Your task to perform on an android device: Go to settings Image 0: 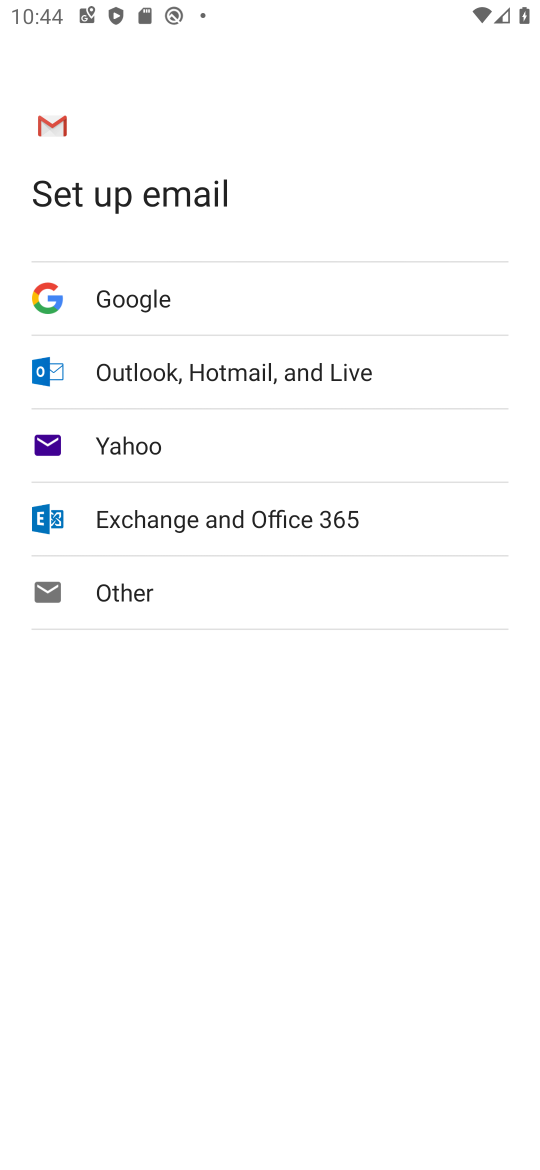
Step 0: press home button
Your task to perform on an android device: Go to settings Image 1: 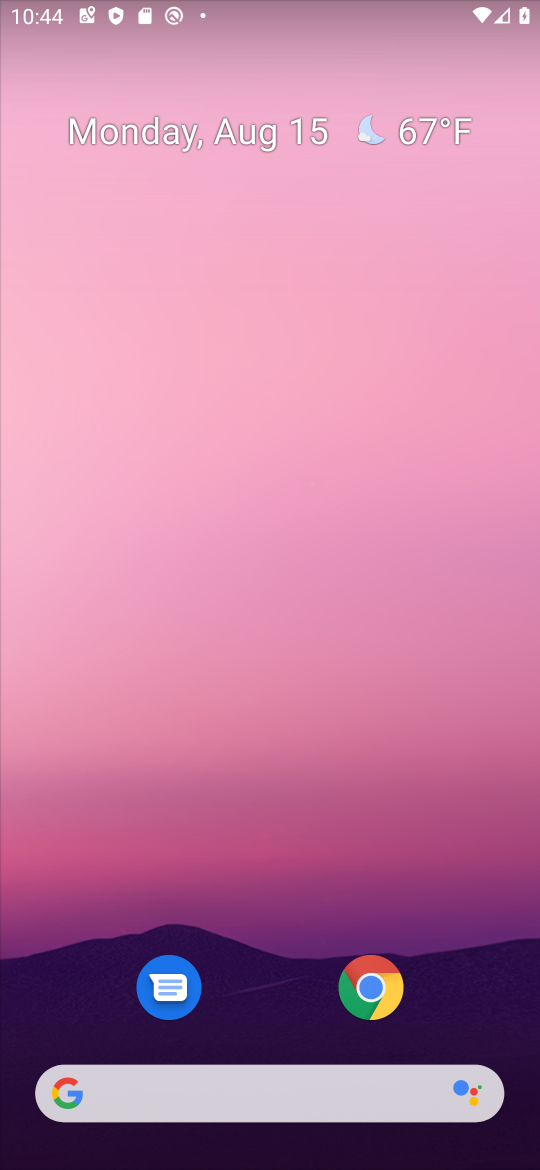
Step 1: drag from (311, 1015) to (229, 385)
Your task to perform on an android device: Go to settings Image 2: 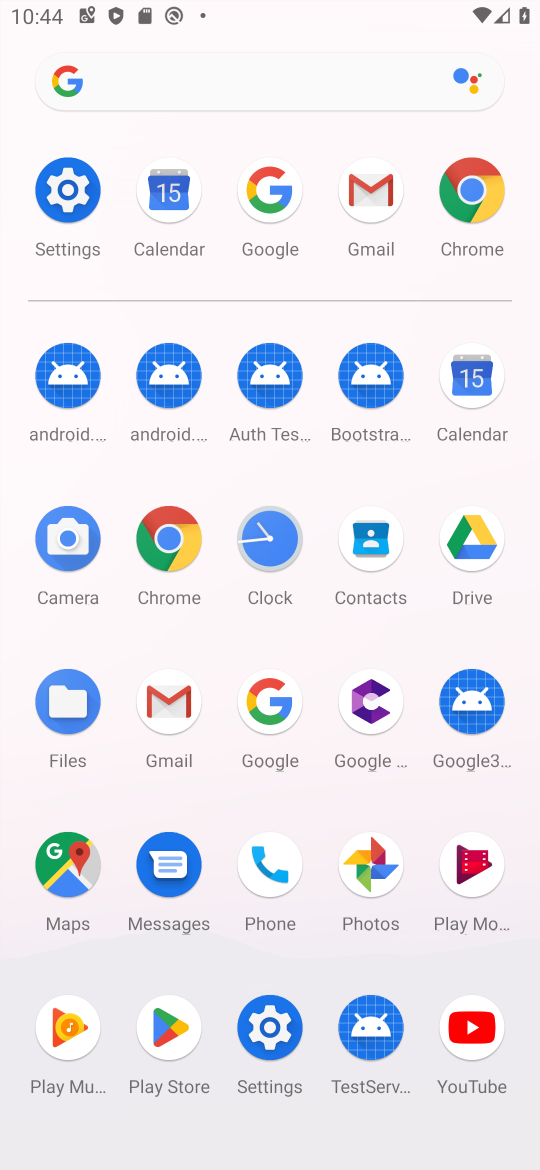
Step 2: click (45, 218)
Your task to perform on an android device: Go to settings Image 3: 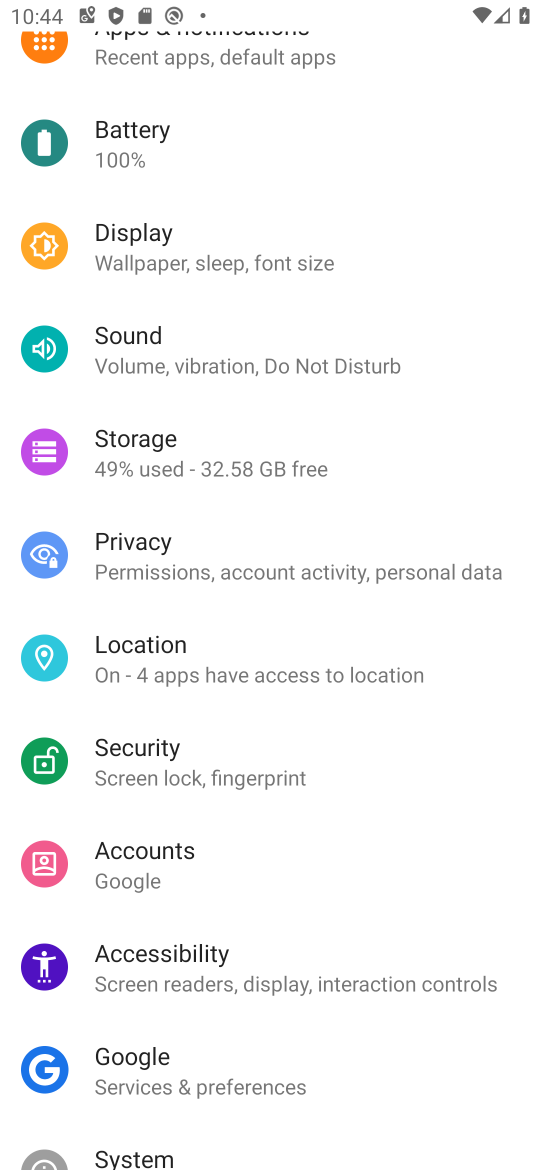
Step 3: task complete